Your task to perform on an android device: Go to wifi settings Image 0: 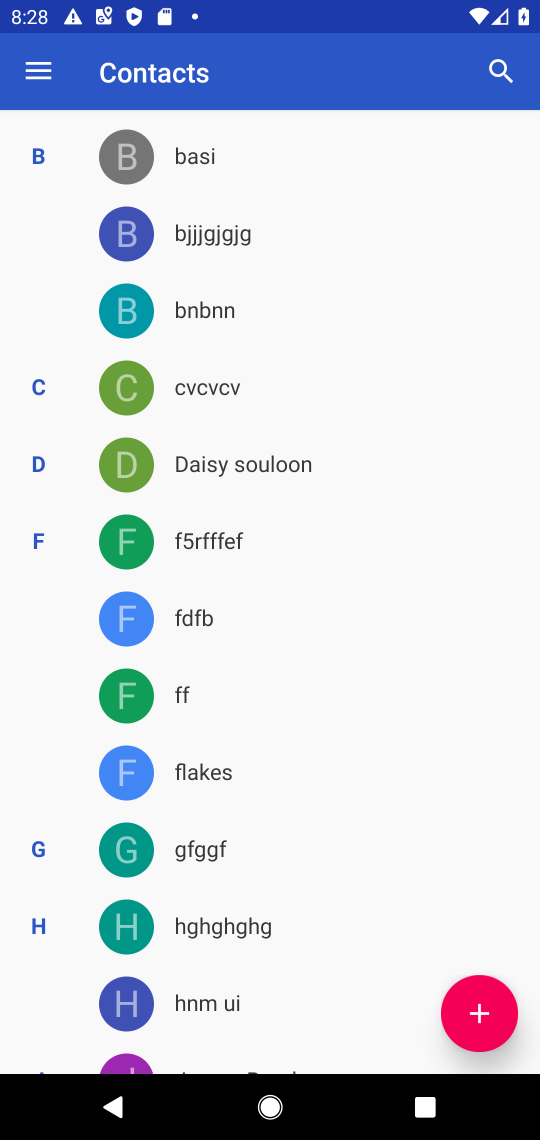
Step 0: press home button
Your task to perform on an android device: Go to wifi settings Image 1: 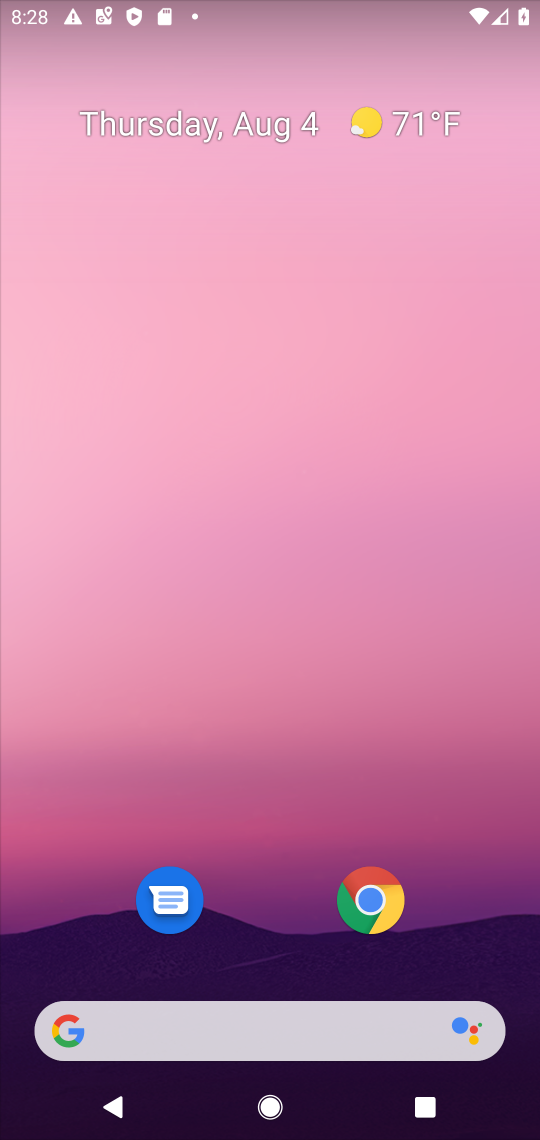
Step 1: drag from (281, 912) to (297, 240)
Your task to perform on an android device: Go to wifi settings Image 2: 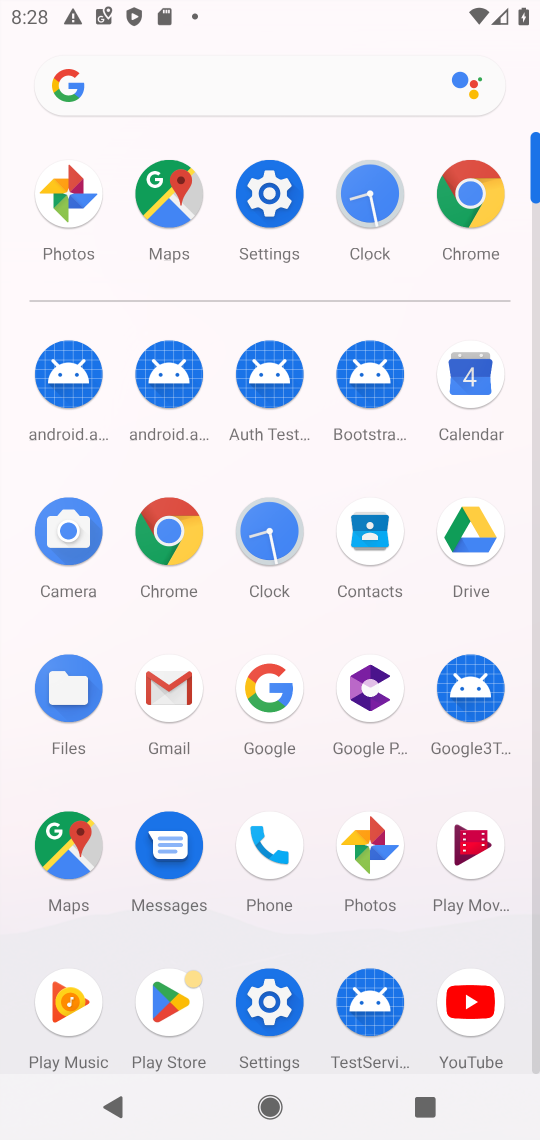
Step 2: click (265, 201)
Your task to perform on an android device: Go to wifi settings Image 3: 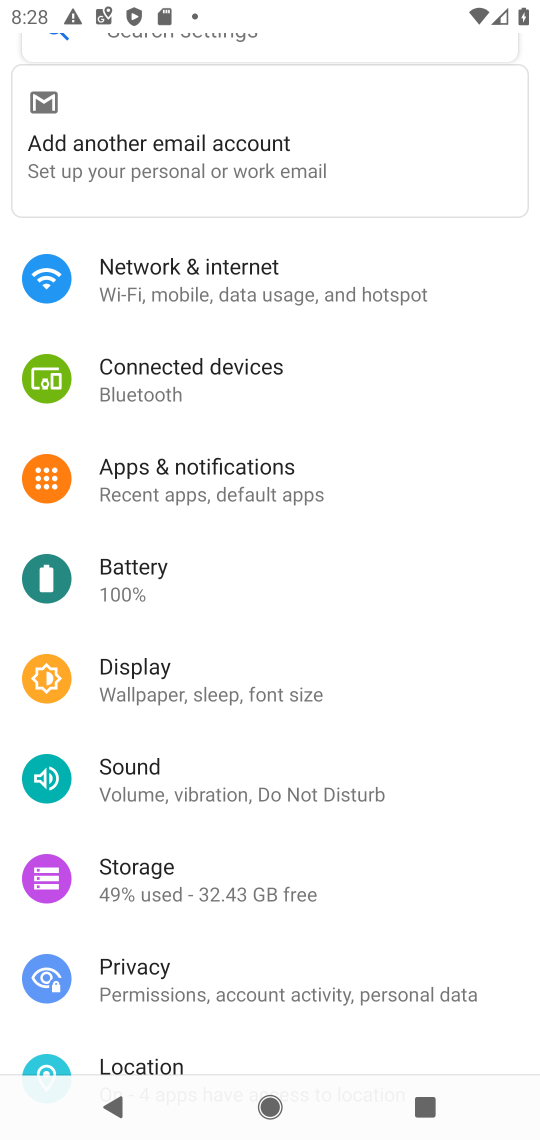
Step 3: click (143, 267)
Your task to perform on an android device: Go to wifi settings Image 4: 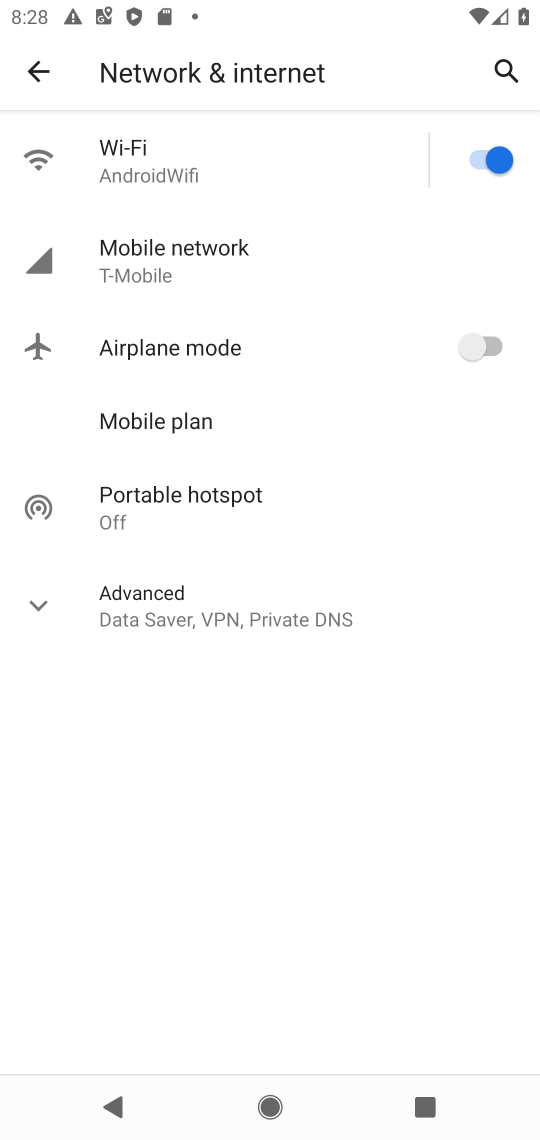
Step 4: click (143, 184)
Your task to perform on an android device: Go to wifi settings Image 5: 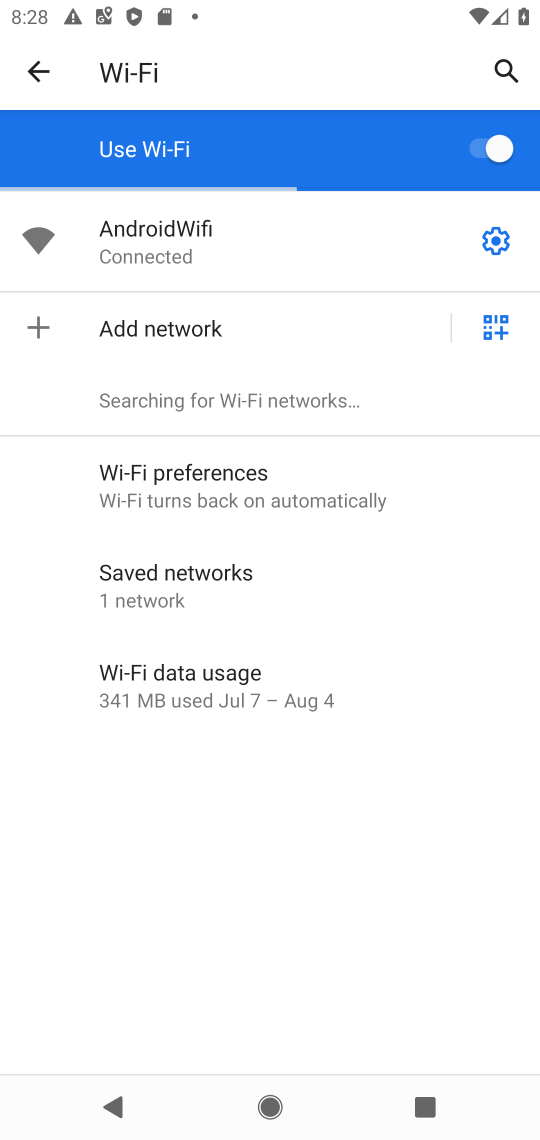
Step 5: task complete